Your task to perform on an android device: turn on airplane mode Image 0: 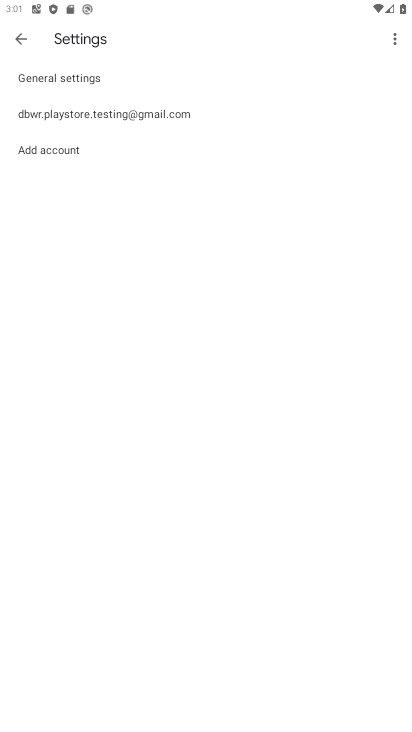
Step 0: press home button
Your task to perform on an android device: turn on airplane mode Image 1: 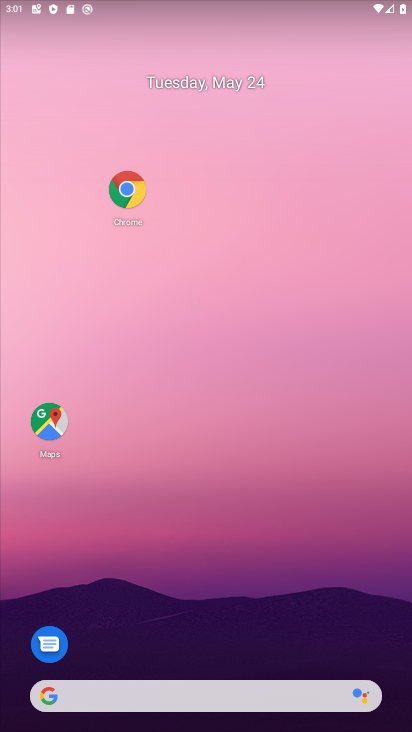
Step 1: drag from (238, 607) to (302, 1)
Your task to perform on an android device: turn on airplane mode Image 2: 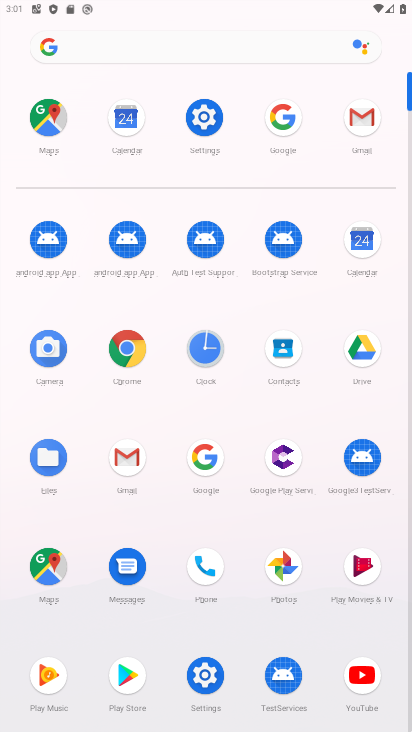
Step 2: click (206, 120)
Your task to perform on an android device: turn on airplane mode Image 3: 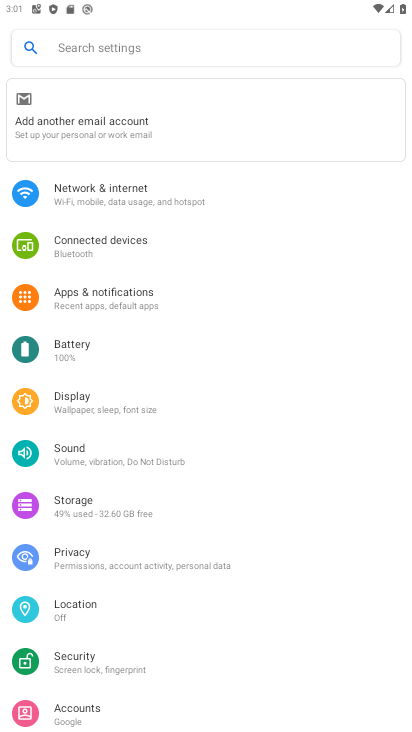
Step 3: click (128, 182)
Your task to perform on an android device: turn on airplane mode Image 4: 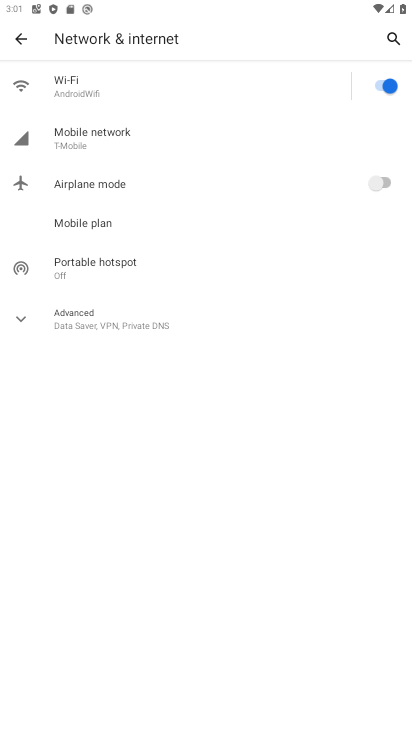
Step 4: click (371, 179)
Your task to perform on an android device: turn on airplane mode Image 5: 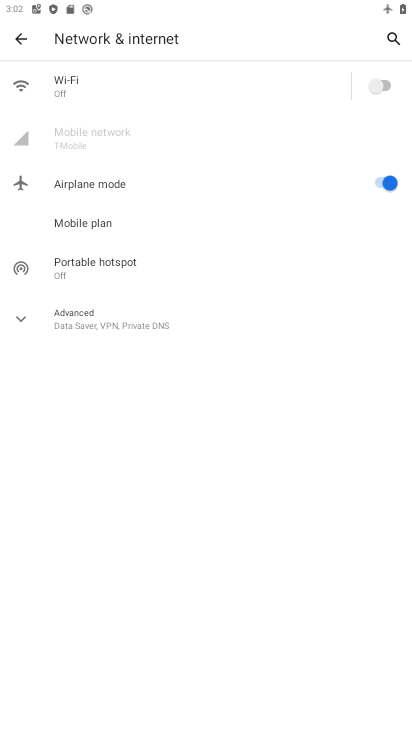
Step 5: task complete